Your task to perform on an android device: What is the news today? Image 0: 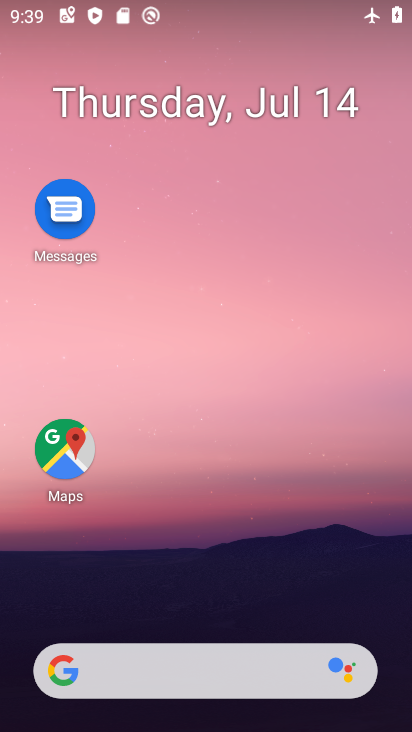
Step 0: click (156, 673)
Your task to perform on an android device: What is the news today? Image 1: 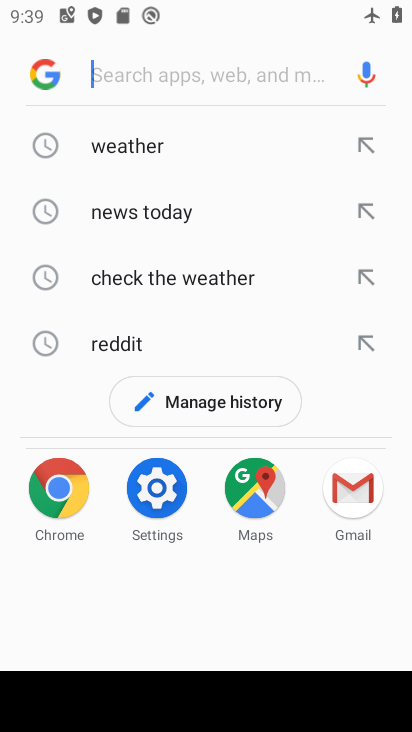
Step 1: click (111, 228)
Your task to perform on an android device: What is the news today? Image 2: 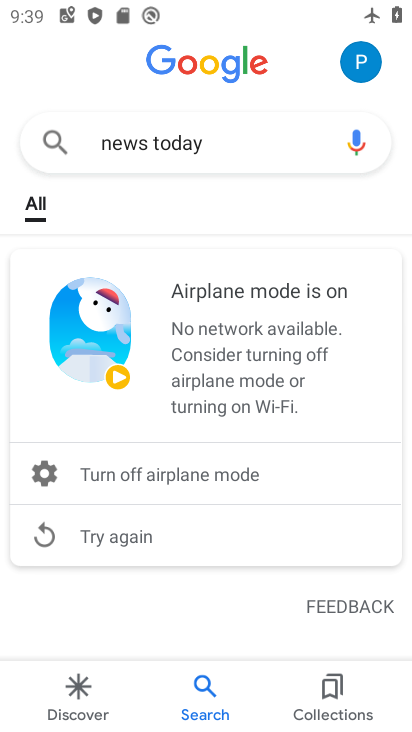
Step 2: click (108, 525)
Your task to perform on an android device: What is the news today? Image 3: 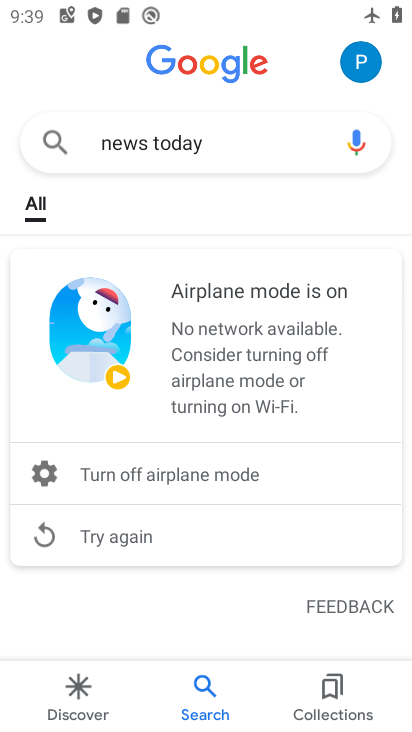
Step 3: task complete